Your task to perform on an android device: Do I have any events this weekend? Image 0: 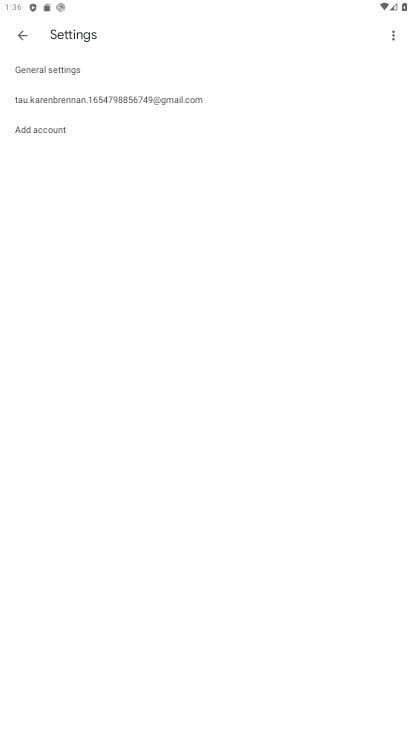
Step 0: drag from (192, 628) to (165, 106)
Your task to perform on an android device: Do I have any events this weekend? Image 1: 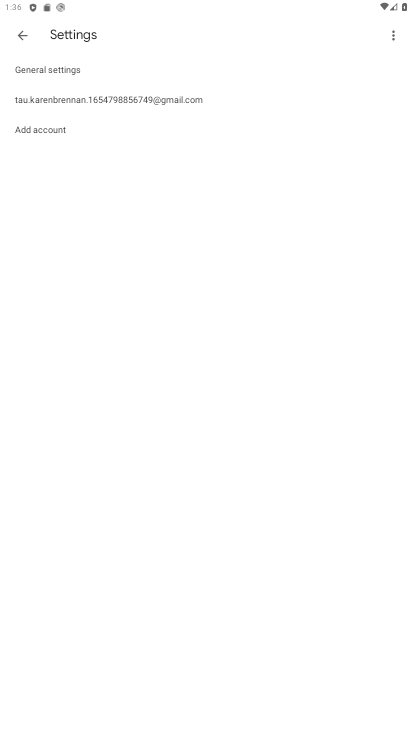
Step 1: drag from (258, 558) to (238, 70)
Your task to perform on an android device: Do I have any events this weekend? Image 2: 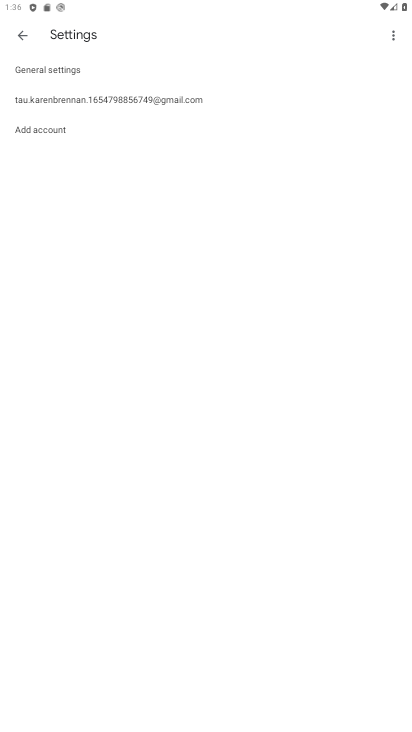
Step 2: drag from (268, 256) to (231, 46)
Your task to perform on an android device: Do I have any events this weekend? Image 3: 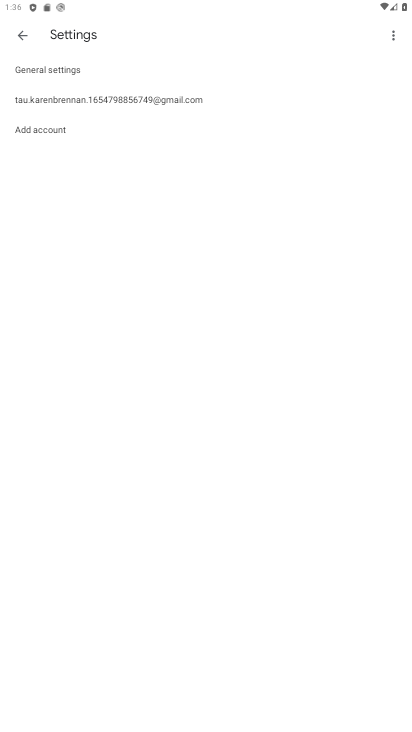
Step 3: press back button
Your task to perform on an android device: Do I have any events this weekend? Image 4: 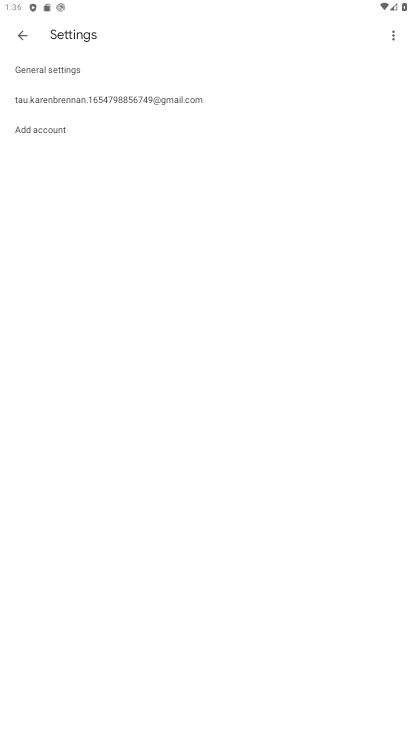
Step 4: press back button
Your task to perform on an android device: Do I have any events this weekend? Image 5: 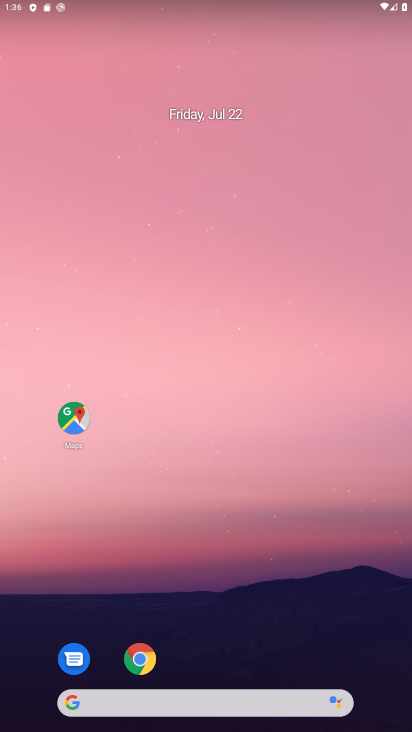
Step 5: click (135, 55)
Your task to perform on an android device: Do I have any events this weekend? Image 6: 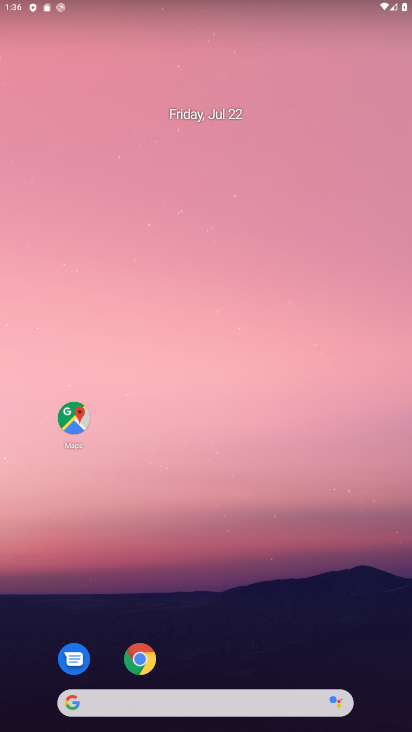
Step 6: drag from (90, 180) to (98, 93)
Your task to perform on an android device: Do I have any events this weekend? Image 7: 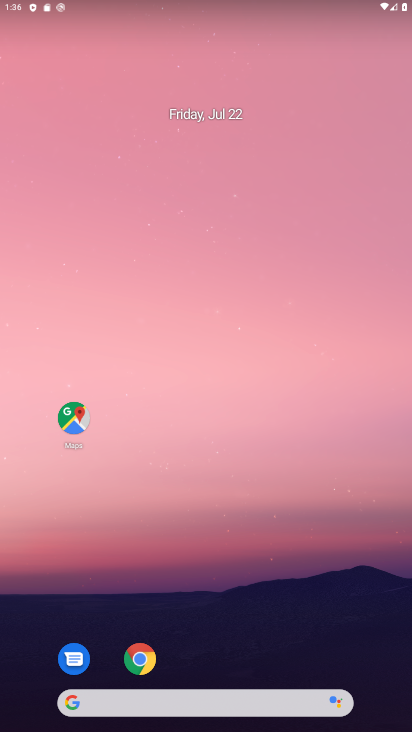
Step 7: click (32, 33)
Your task to perform on an android device: Do I have any events this weekend? Image 8: 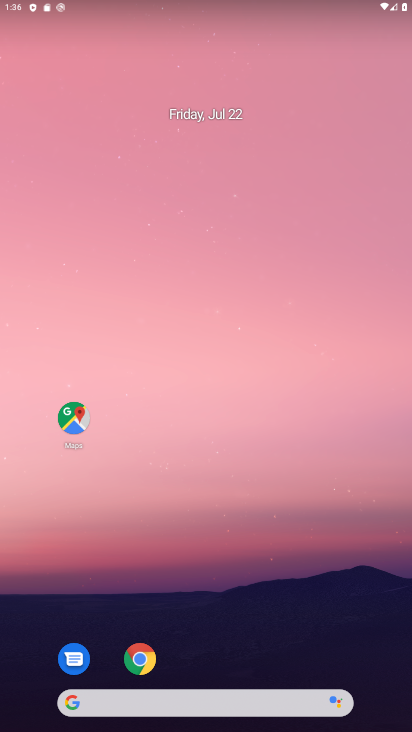
Step 8: click (66, 189)
Your task to perform on an android device: Do I have any events this weekend? Image 9: 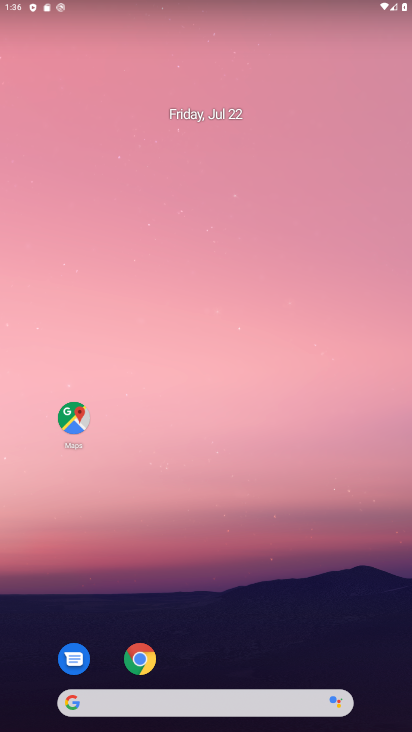
Step 9: click (16, 31)
Your task to perform on an android device: Do I have any events this weekend? Image 10: 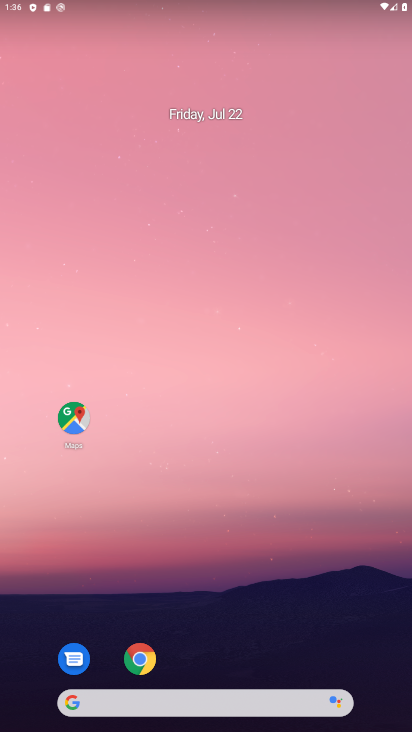
Step 10: click (16, 36)
Your task to perform on an android device: Do I have any events this weekend? Image 11: 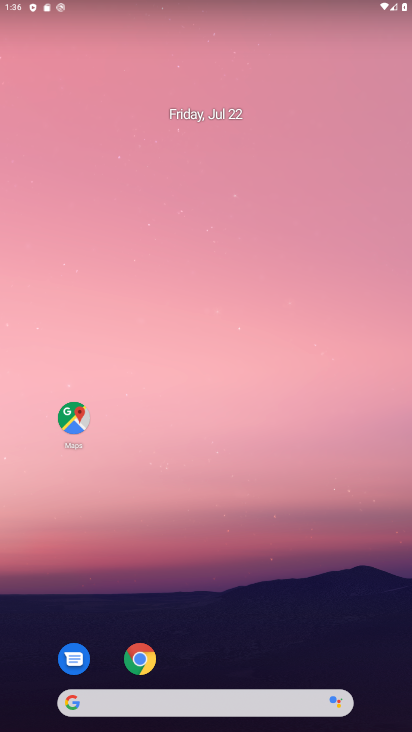
Step 11: press back button
Your task to perform on an android device: Do I have any events this weekend? Image 12: 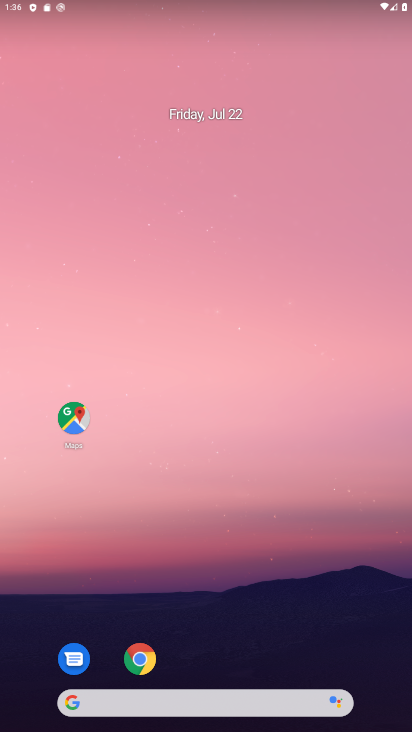
Step 12: press back button
Your task to perform on an android device: Do I have any events this weekend? Image 13: 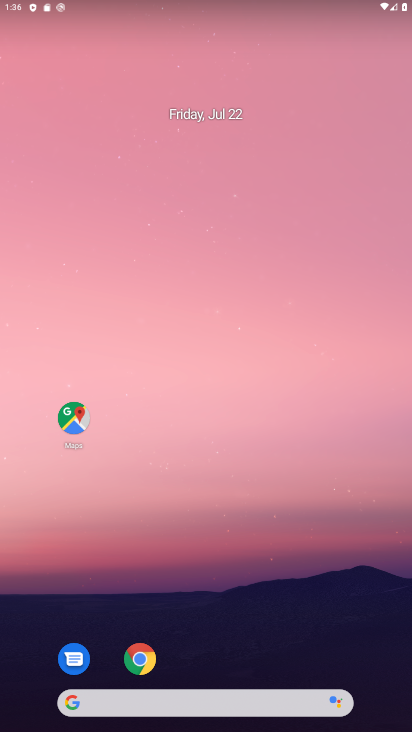
Step 13: click (152, 147)
Your task to perform on an android device: Do I have any events this weekend? Image 14: 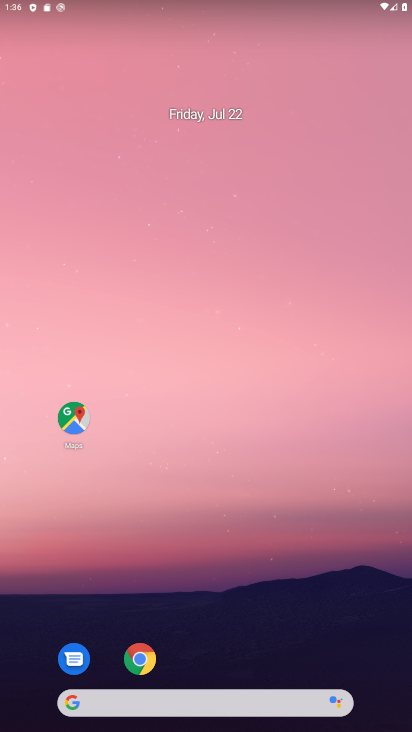
Step 14: drag from (205, 444) to (149, 143)
Your task to perform on an android device: Do I have any events this weekend? Image 15: 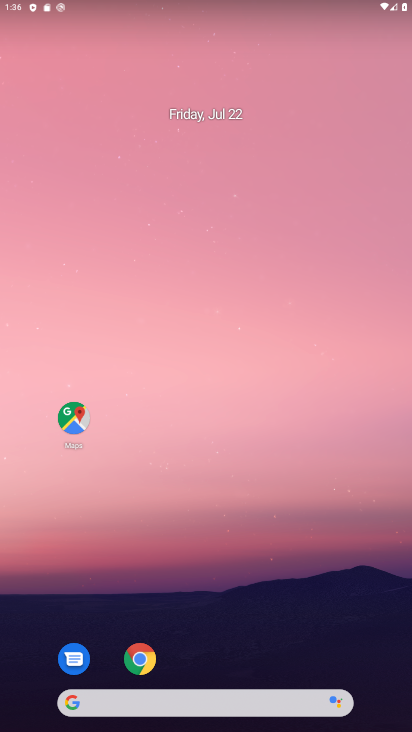
Step 15: drag from (185, 485) to (95, 68)
Your task to perform on an android device: Do I have any events this weekend? Image 16: 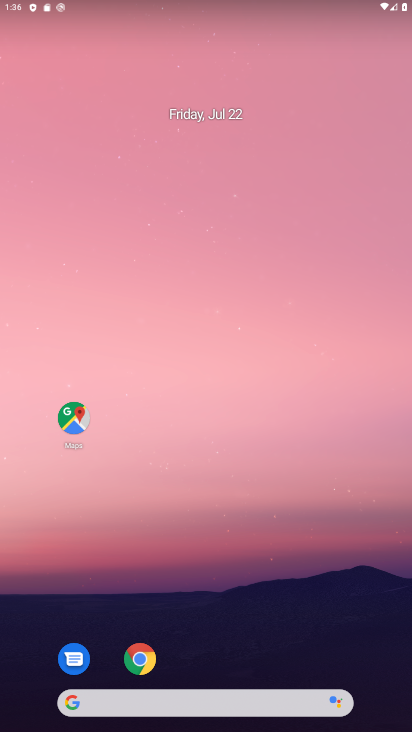
Step 16: click (121, 198)
Your task to perform on an android device: Do I have any events this weekend? Image 17: 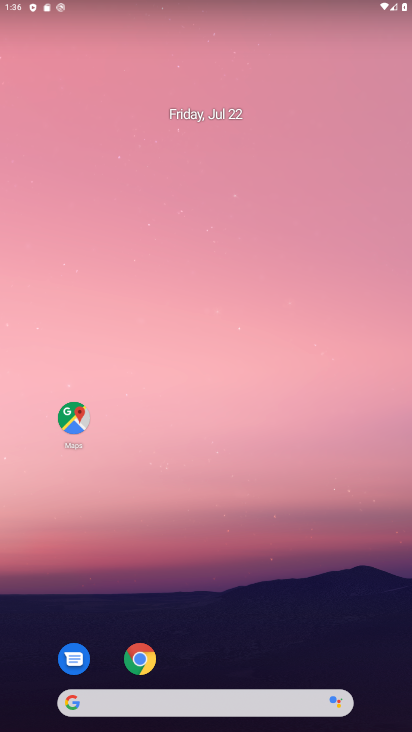
Step 17: drag from (188, 544) to (96, 0)
Your task to perform on an android device: Do I have any events this weekend? Image 18: 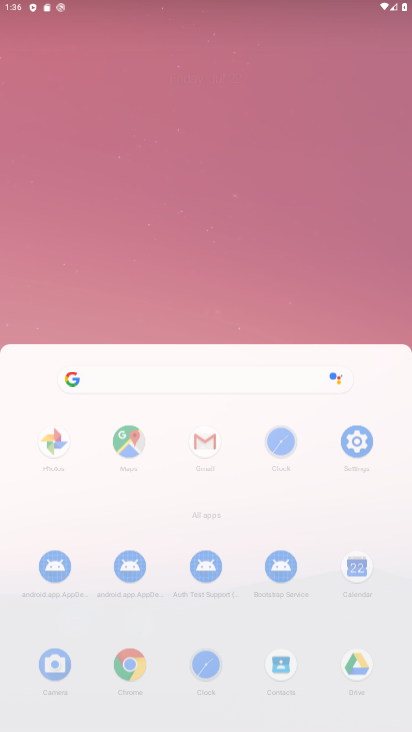
Step 18: drag from (134, 232) to (169, 163)
Your task to perform on an android device: Do I have any events this weekend? Image 19: 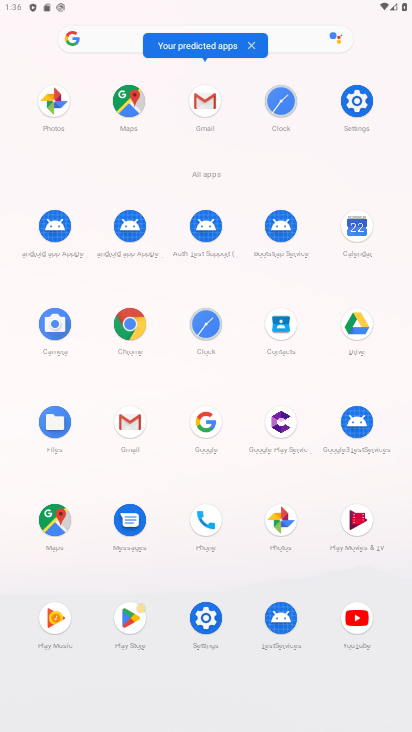
Step 19: click (139, 143)
Your task to perform on an android device: Do I have any events this weekend? Image 20: 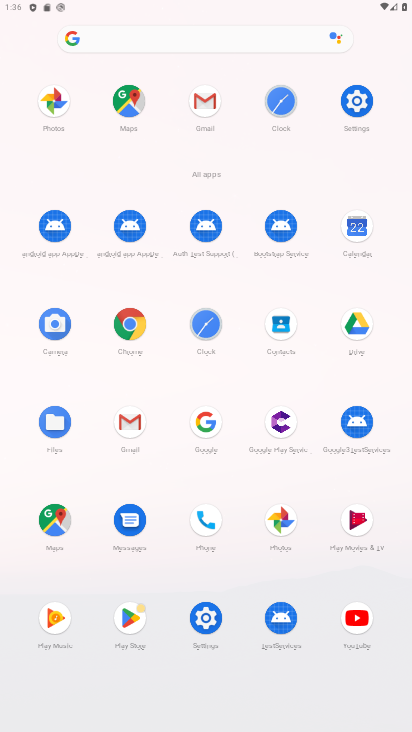
Step 20: drag from (97, 146) to (42, 41)
Your task to perform on an android device: Do I have any events this weekend? Image 21: 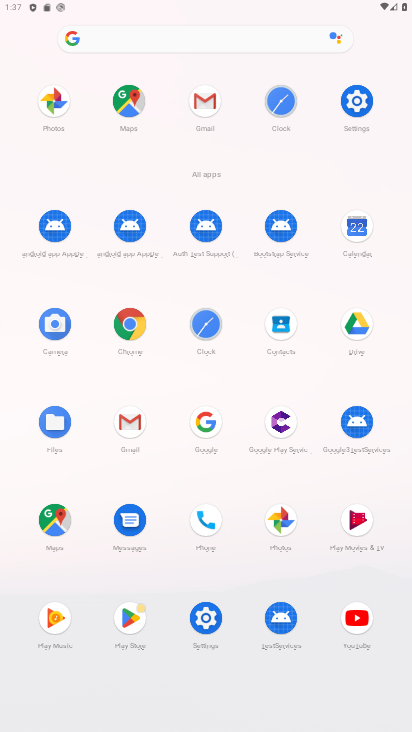
Step 21: drag from (156, 366) to (118, 146)
Your task to perform on an android device: Do I have any events this weekend? Image 22: 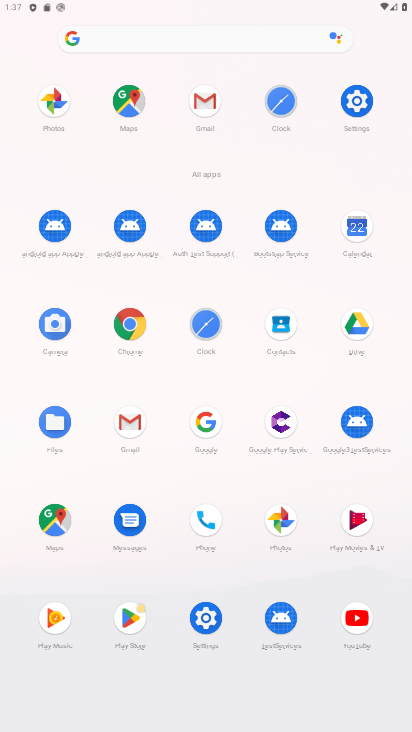
Step 22: drag from (152, 499) to (90, 88)
Your task to perform on an android device: Do I have any events this weekend? Image 23: 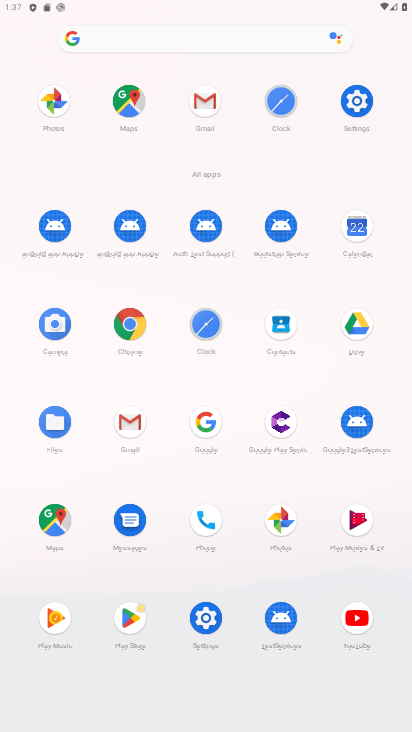
Step 23: drag from (171, 331) to (142, 10)
Your task to perform on an android device: Do I have any events this weekend? Image 24: 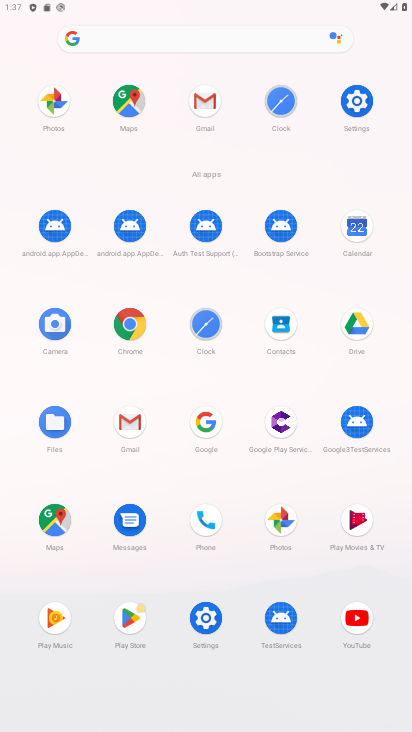
Step 24: drag from (131, 101) to (154, 165)
Your task to perform on an android device: Do I have any events this weekend? Image 25: 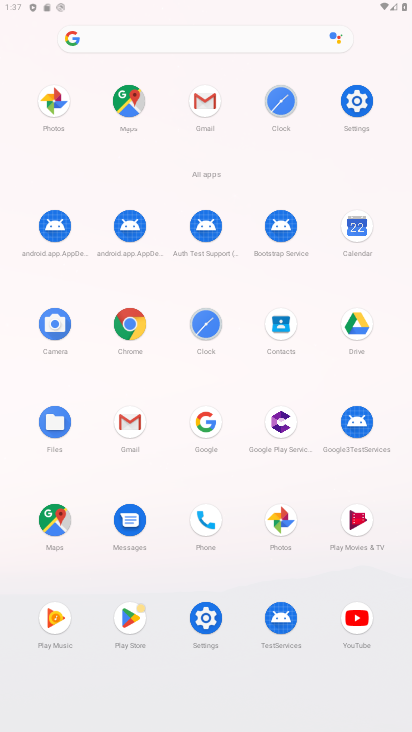
Step 25: click (109, 111)
Your task to perform on an android device: Do I have any events this weekend? Image 26: 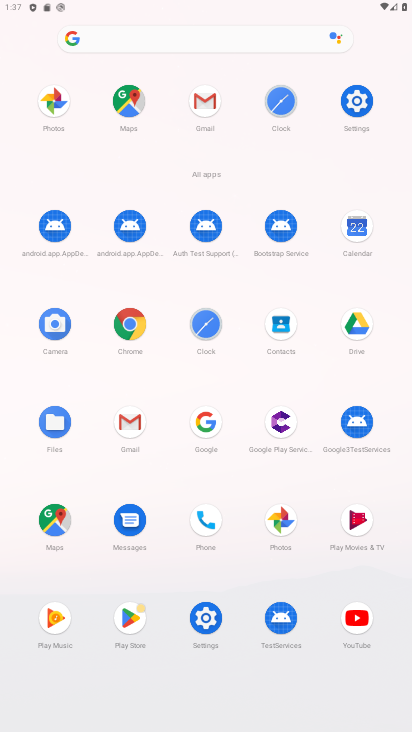
Step 26: click (72, 168)
Your task to perform on an android device: Do I have any events this weekend? Image 27: 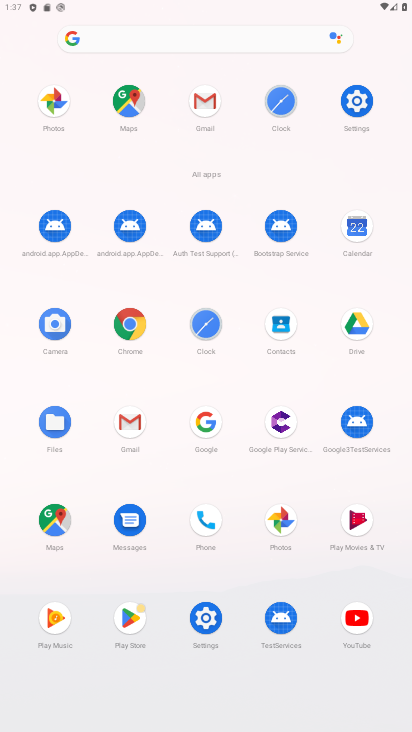
Step 27: drag from (173, 320) to (158, 125)
Your task to perform on an android device: Do I have any events this weekend? Image 28: 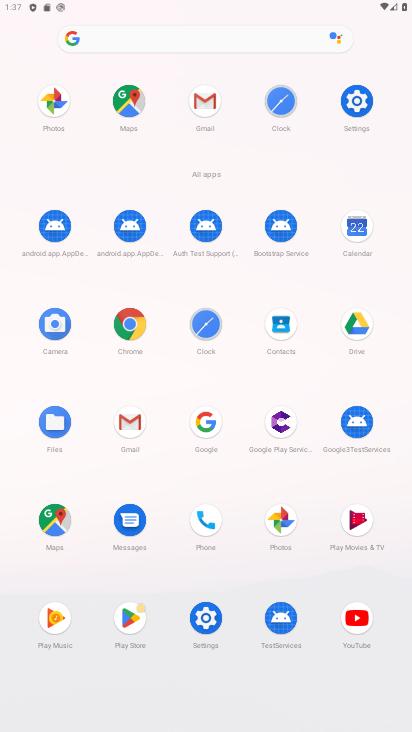
Step 28: click (357, 226)
Your task to perform on an android device: Do I have any events this weekend? Image 29: 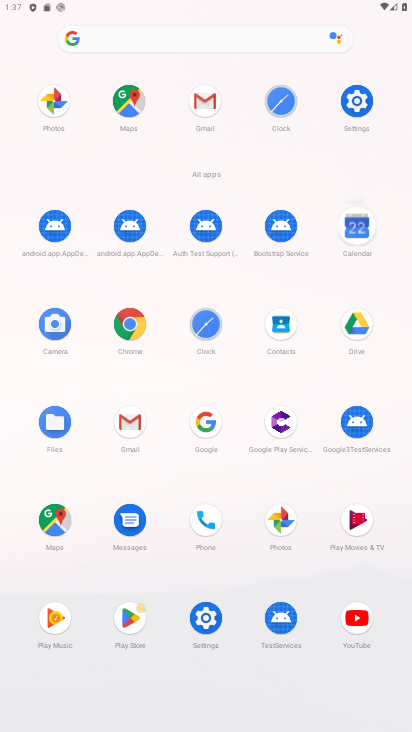
Step 29: click (359, 226)
Your task to perform on an android device: Do I have any events this weekend? Image 30: 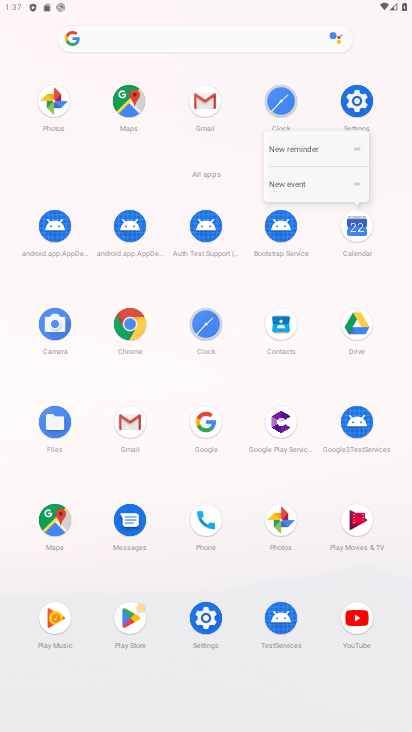
Step 30: click (360, 226)
Your task to perform on an android device: Do I have any events this weekend? Image 31: 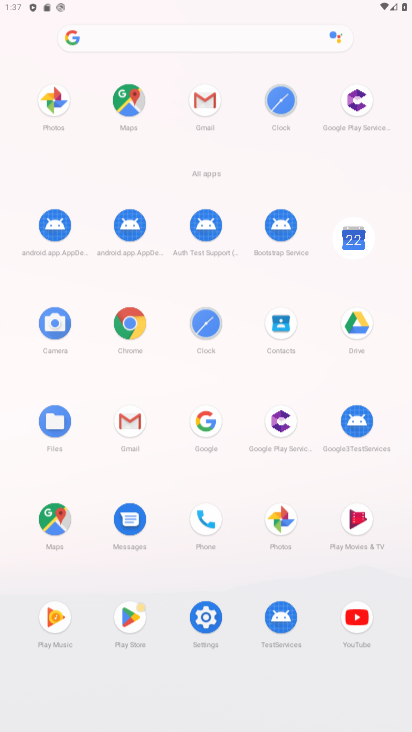
Step 31: click (360, 226)
Your task to perform on an android device: Do I have any events this weekend? Image 32: 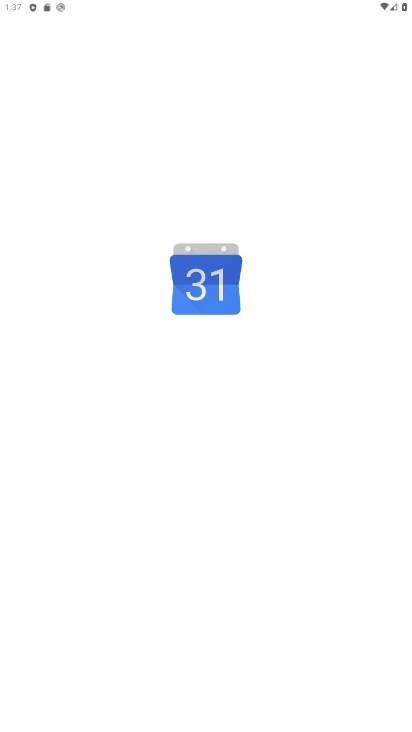
Step 32: click (360, 226)
Your task to perform on an android device: Do I have any events this weekend? Image 33: 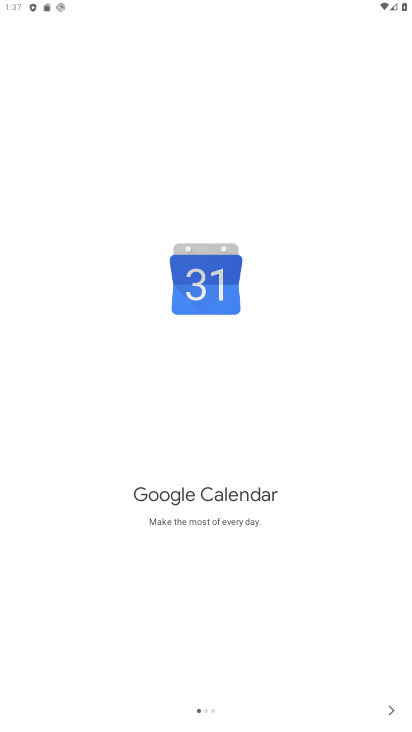
Step 33: click (361, 226)
Your task to perform on an android device: Do I have any events this weekend? Image 34: 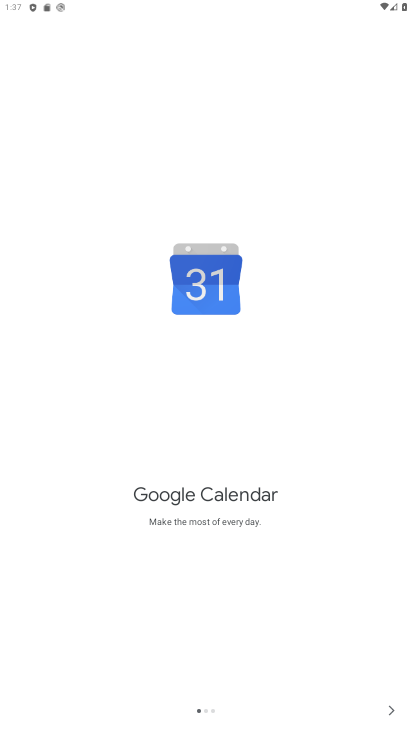
Step 34: click (391, 709)
Your task to perform on an android device: Do I have any events this weekend? Image 35: 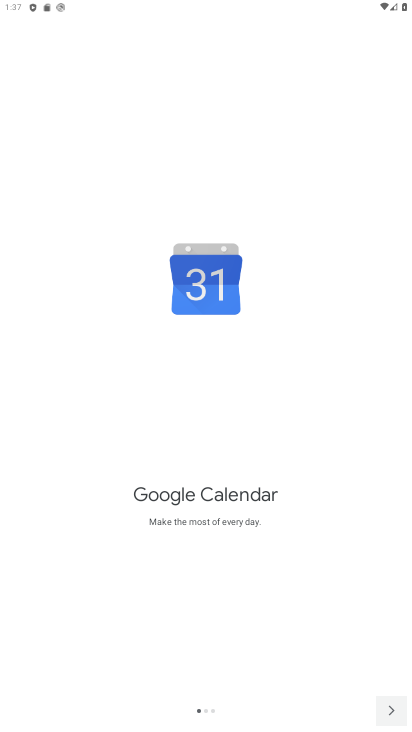
Step 35: click (392, 708)
Your task to perform on an android device: Do I have any events this weekend? Image 36: 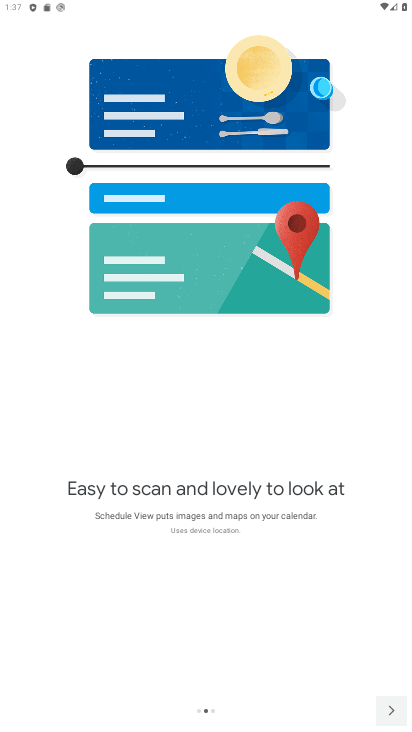
Step 36: click (394, 708)
Your task to perform on an android device: Do I have any events this weekend? Image 37: 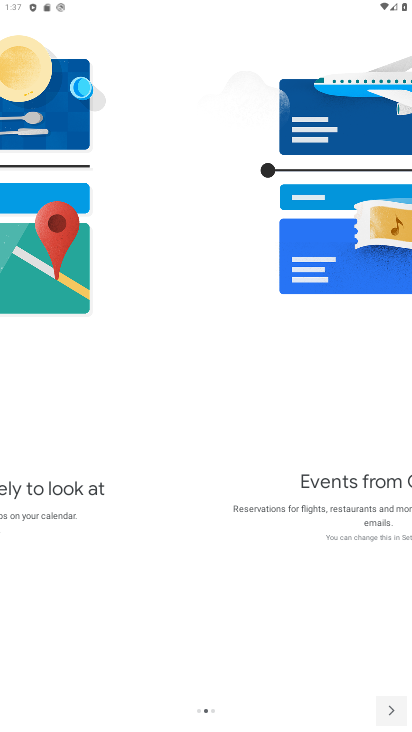
Step 37: click (394, 708)
Your task to perform on an android device: Do I have any events this weekend? Image 38: 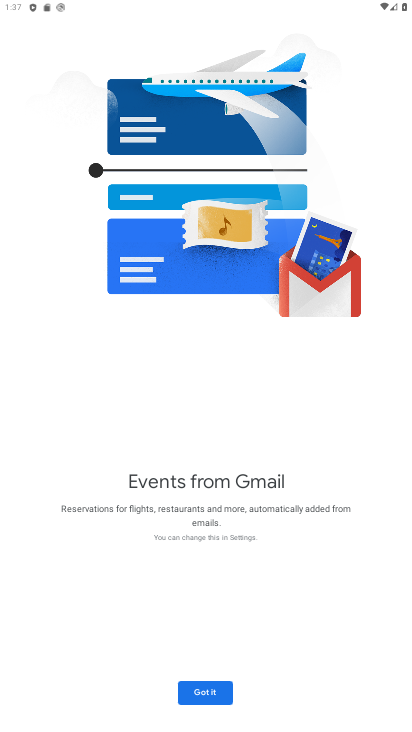
Step 38: click (226, 685)
Your task to perform on an android device: Do I have any events this weekend? Image 39: 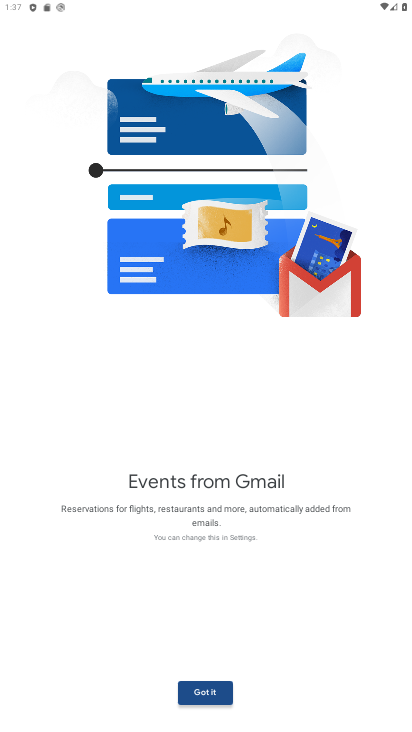
Step 39: click (226, 688)
Your task to perform on an android device: Do I have any events this weekend? Image 40: 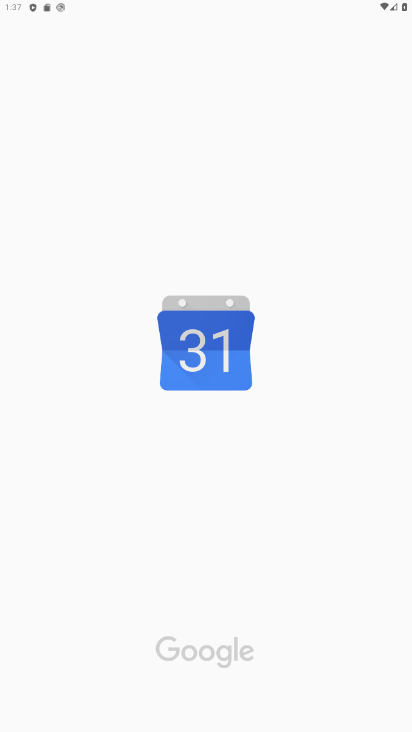
Step 40: click (216, 690)
Your task to perform on an android device: Do I have any events this weekend? Image 41: 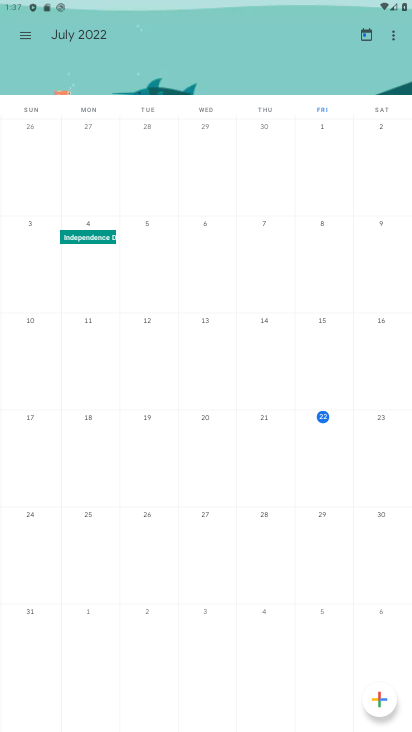
Step 41: task complete